Your task to perform on an android device: What is the recent news? Image 0: 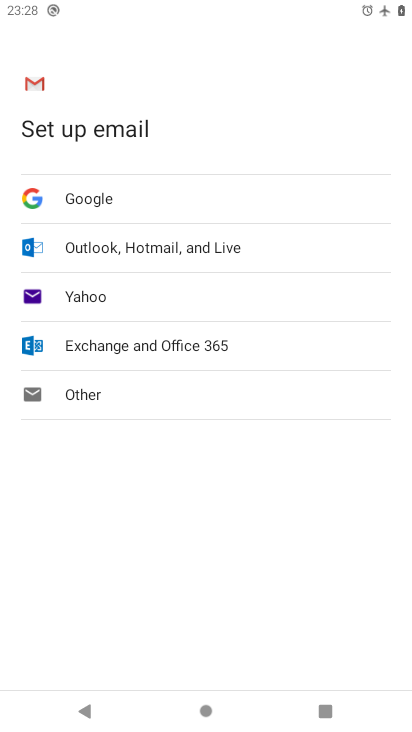
Step 0: press home button
Your task to perform on an android device: What is the recent news? Image 1: 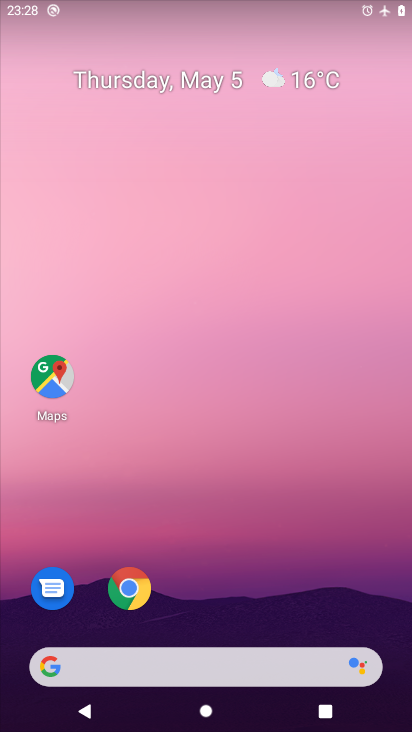
Step 1: click (131, 596)
Your task to perform on an android device: What is the recent news? Image 2: 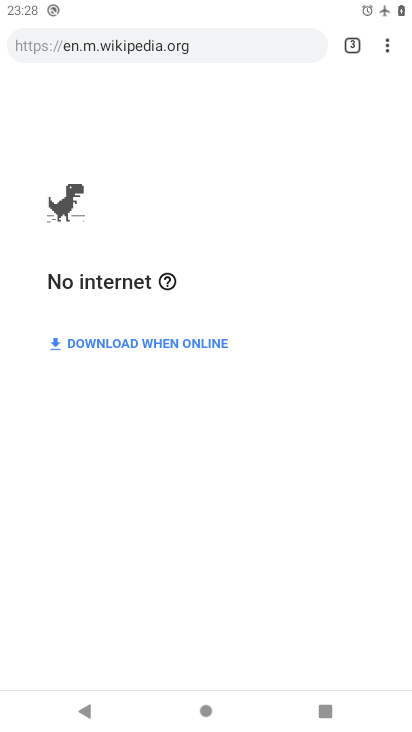
Step 2: click (258, 44)
Your task to perform on an android device: What is the recent news? Image 3: 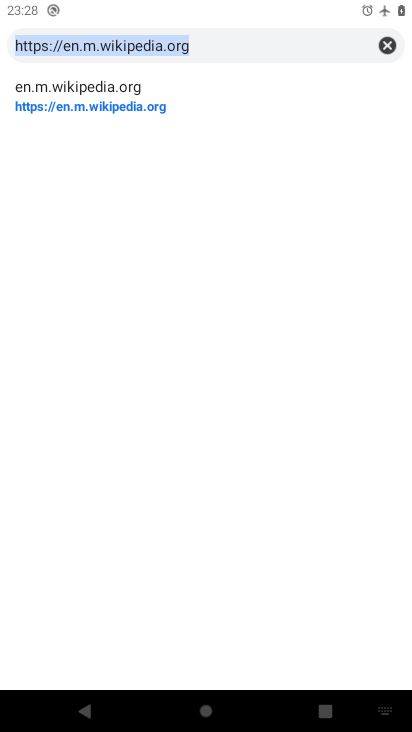
Step 3: type "What is the recent news?"
Your task to perform on an android device: What is the recent news? Image 4: 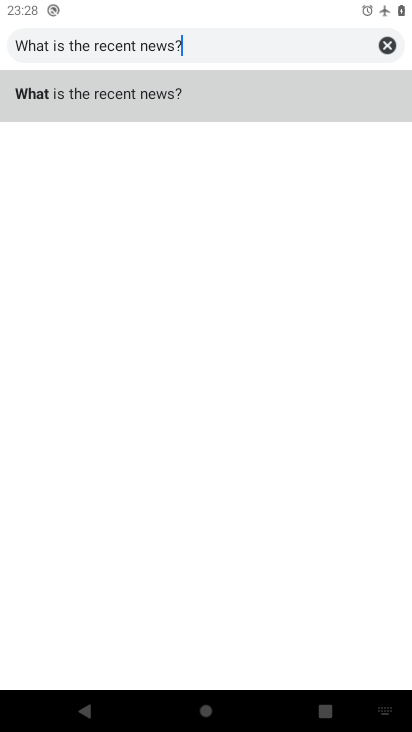
Step 4: click (161, 100)
Your task to perform on an android device: What is the recent news? Image 5: 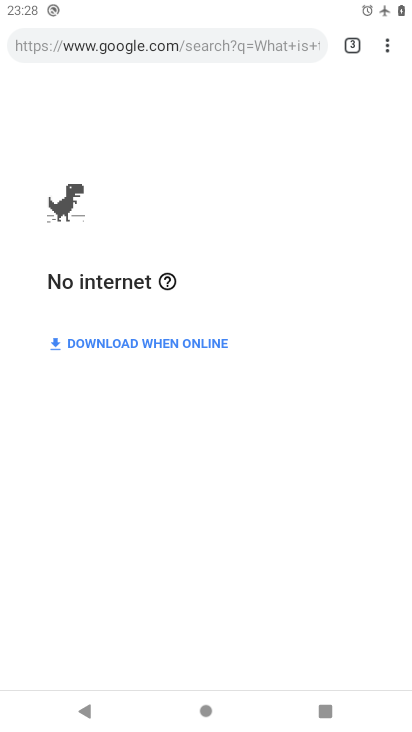
Step 5: task complete